Your task to perform on an android device: When is my next meeting? Image 0: 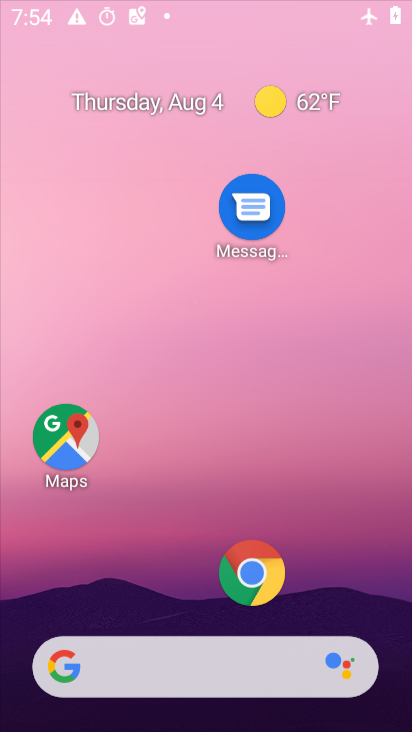
Step 0: press home button
Your task to perform on an android device: When is my next meeting? Image 1: 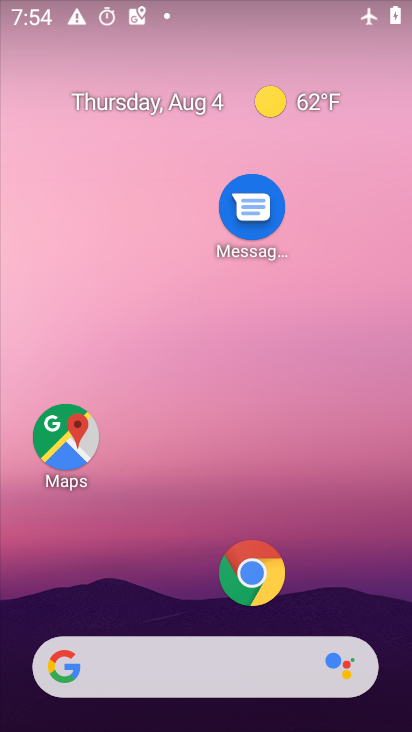
Step 1: drag from (183, 625) to (184, 182)
Your task to perform on an android device: When is my next meeting? Image 2: 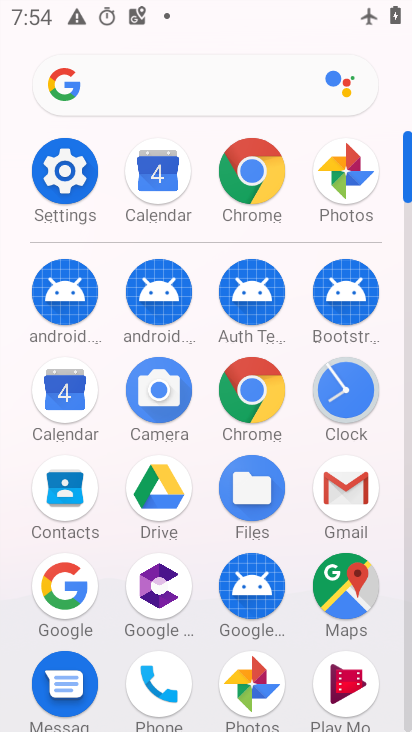
Step 2: click (79, 396)
Your task to perform on an android device: When is my next meeting? Image 3: 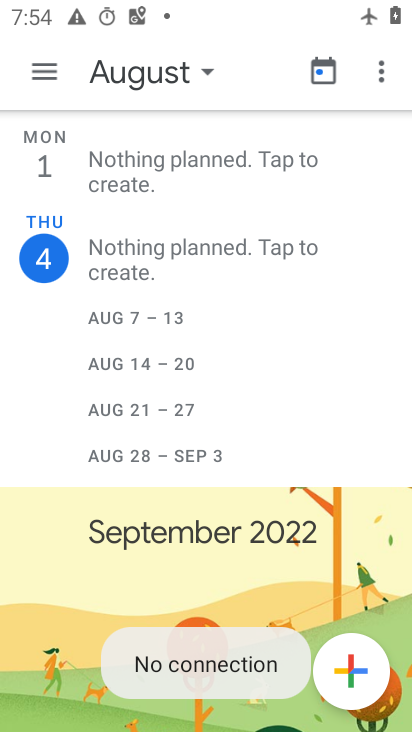
Step 3: click (44, 75)
Your task to perform on an android device: When is my next meeting? Image 4: 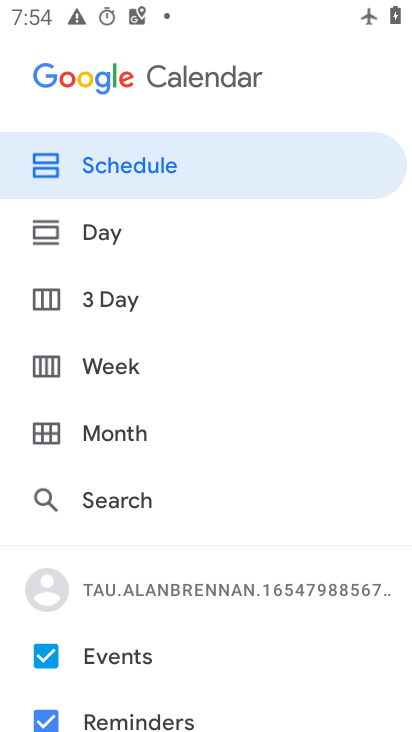
Step 4: click (103, 163)
Your task to perform on an android device: When is my next meeting? Image 5: 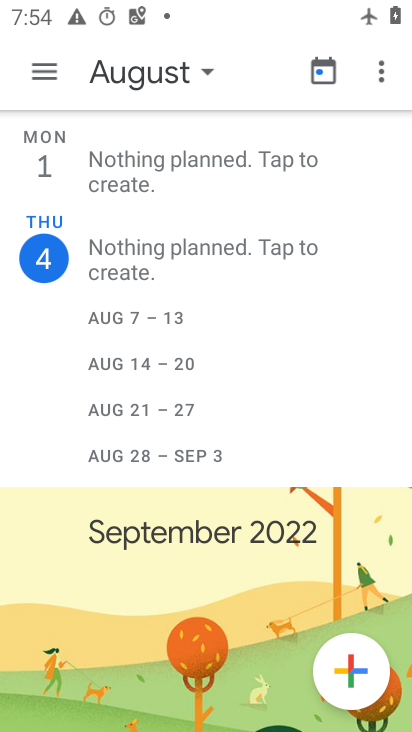
Step 5: task complete